Your task to perform on an android device: change notifications settings Image 0: 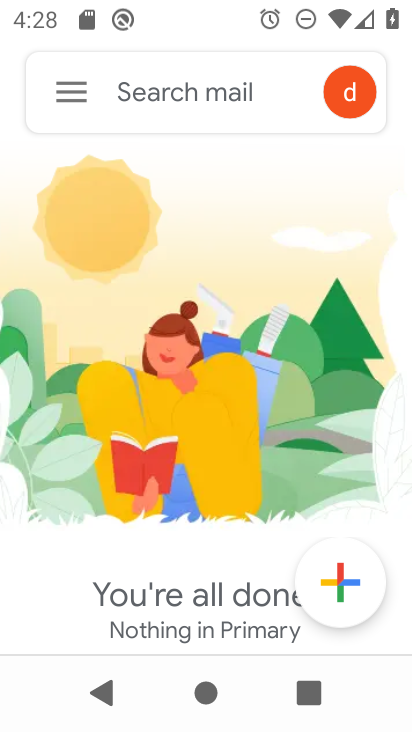
Step 0: press home button
Your task to perform on an android device: change notifications settings Image 1: 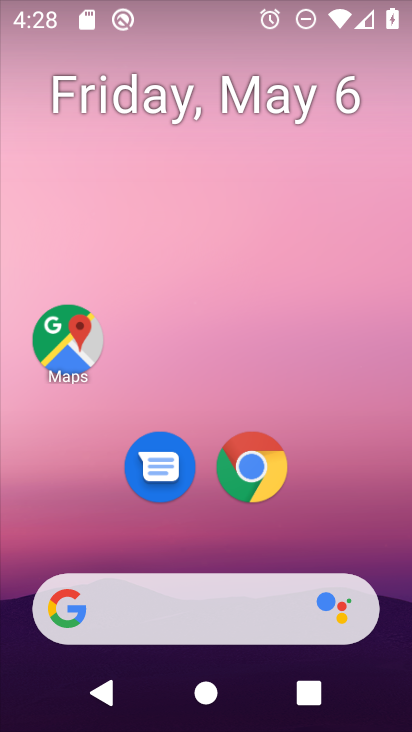
Step 1: drag from (326, 509) to (288, 117)
Your task to perform on an android device: change notifications settings Image 2: 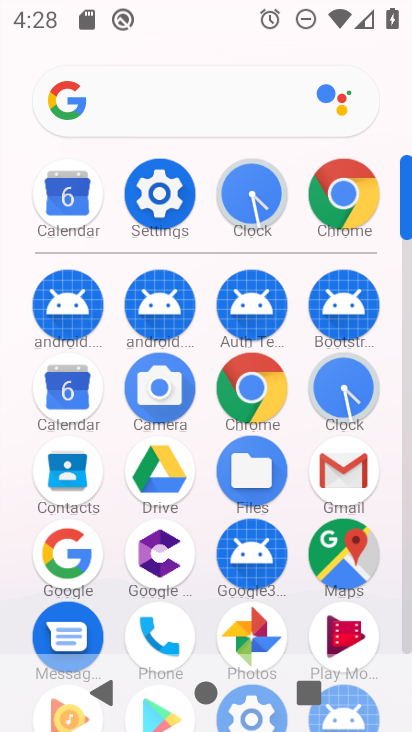
Step 2: click (159, 206)
Your task to perform on an android device: change notifications settings Image 3: 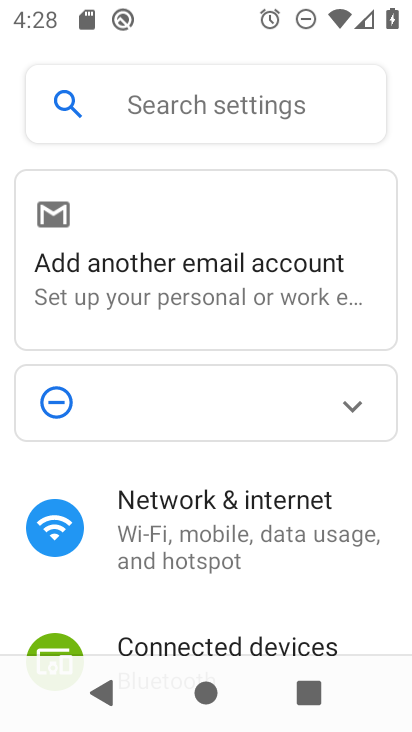
Step 3: drag from (248, 586) to (336, 159)
Your task to perform on an android device: change notifications settings Image 4: 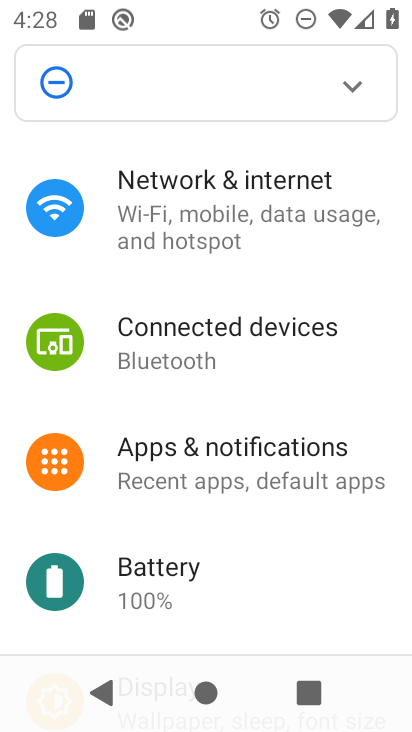
Step 4: click (227, 456)
Your task to perform on an android device: change notifications settings Image 5: 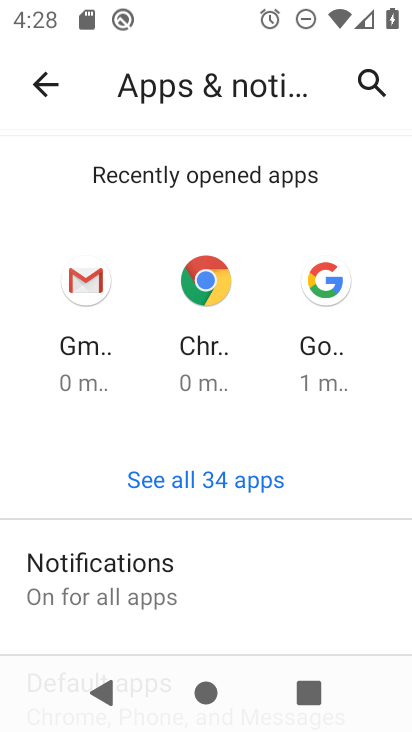
Step 5: click (125, 580)
Your task to perform on an android device: change notifications settings Image 6: 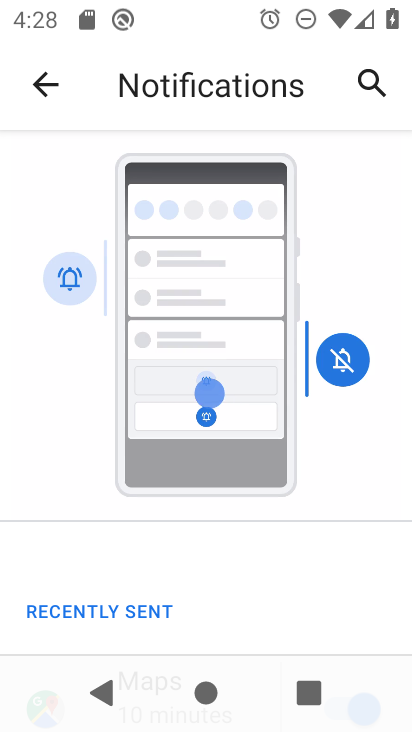
Step 6: drag from (245, 619) to (257, 280)
Your task to perform on an android device: change notifications settings Image 7: 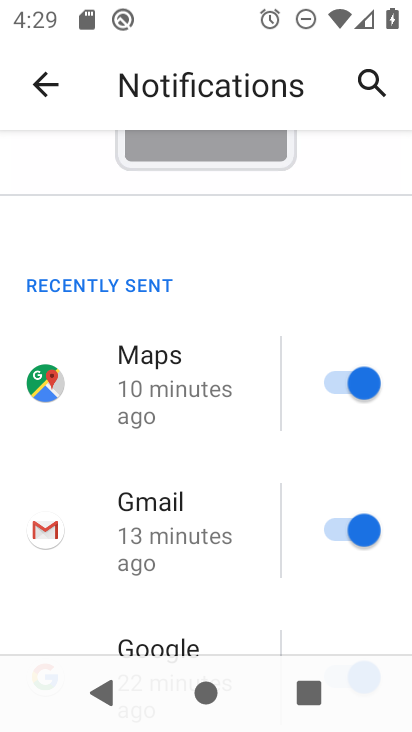
Step 7: drag from (185, 610) to (252, 228)
Your task to perform on an android device: change notifications settings Image 8: 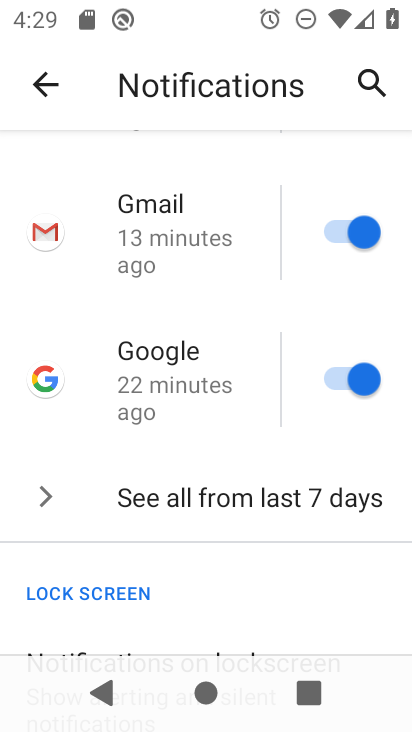
Step 8: drag from (123, 614) to (209, 258)
Your task to perform on an android device: change notifications settings Image 9: 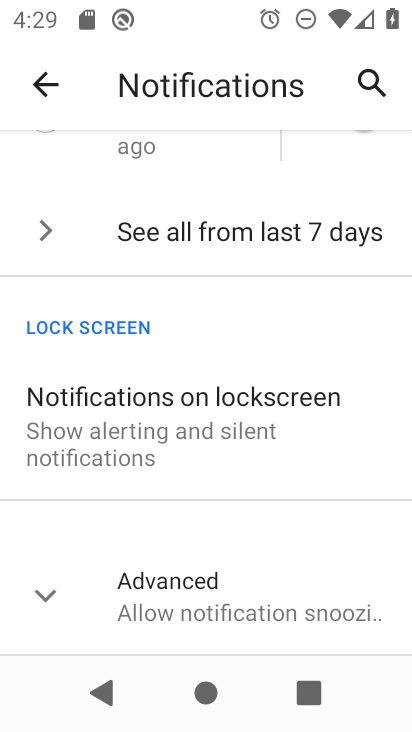
Step 9: click (106, 421)
Your task to perform on an android device: change notifications settings Image 10: 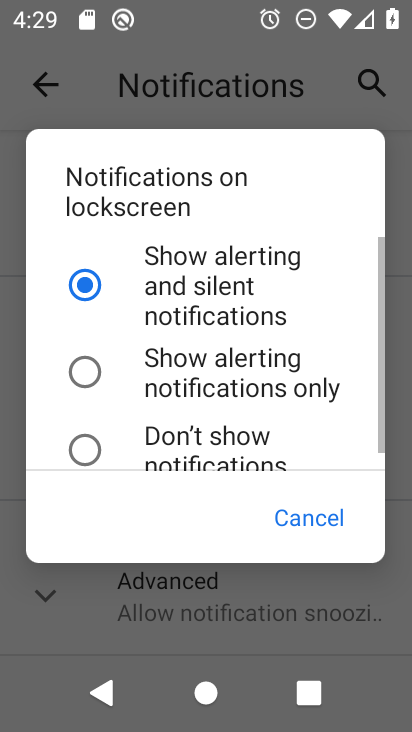
Step 10: click (111, 453)
Your task to perform on an android device: change notifications settings Image 11: 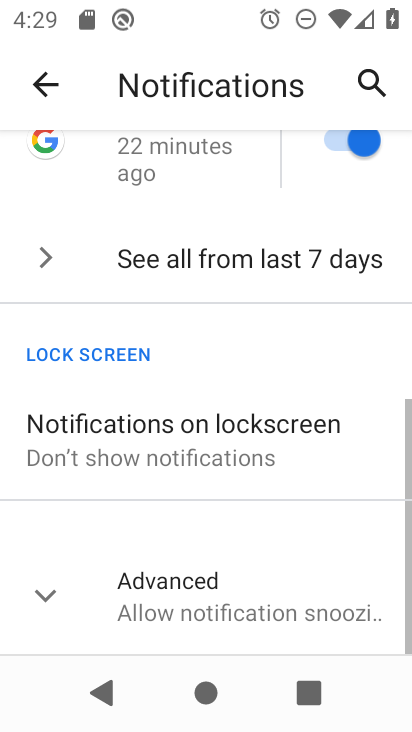
Step 11: task complete